Your task to perform on an android device: Go to Wikipedia Image 0: 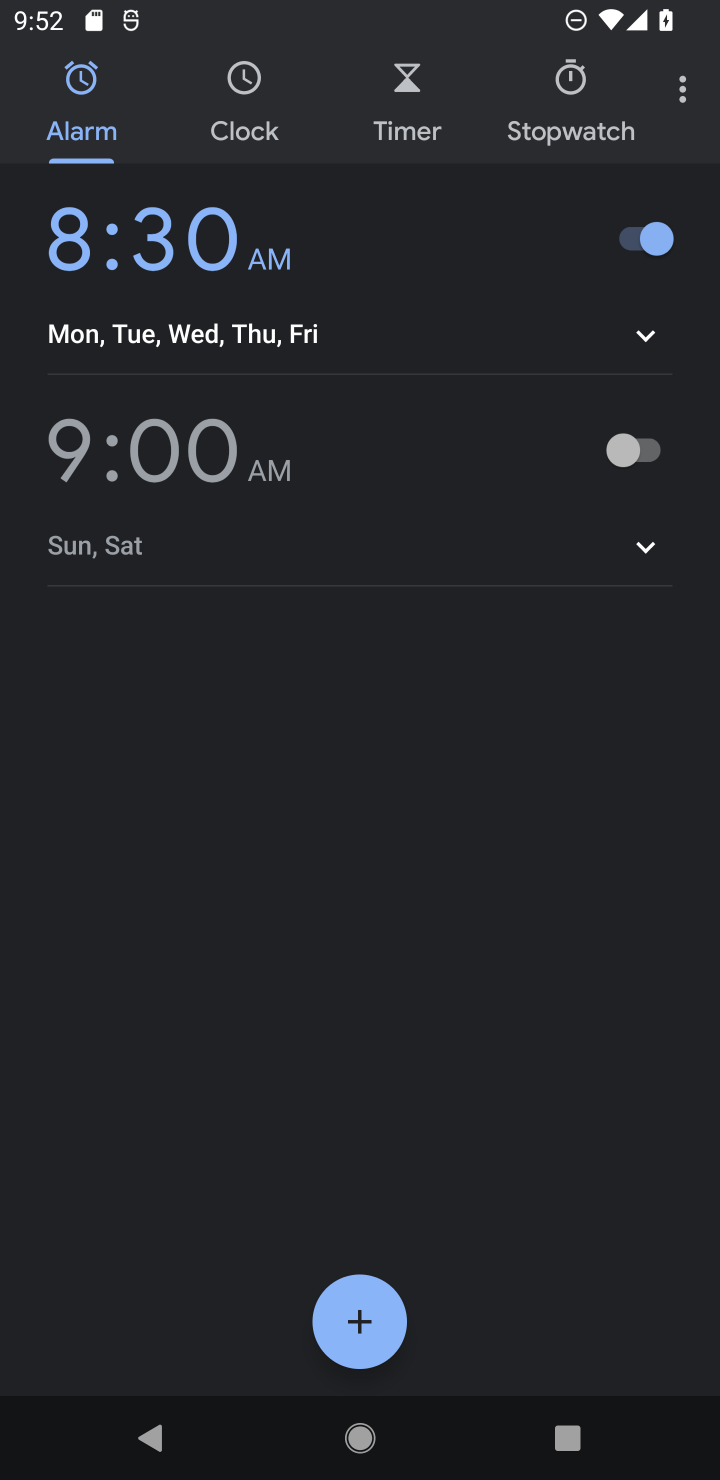
Step 0: press home button
Your task to perform on an android device: Go to Wikipedia Image 1: 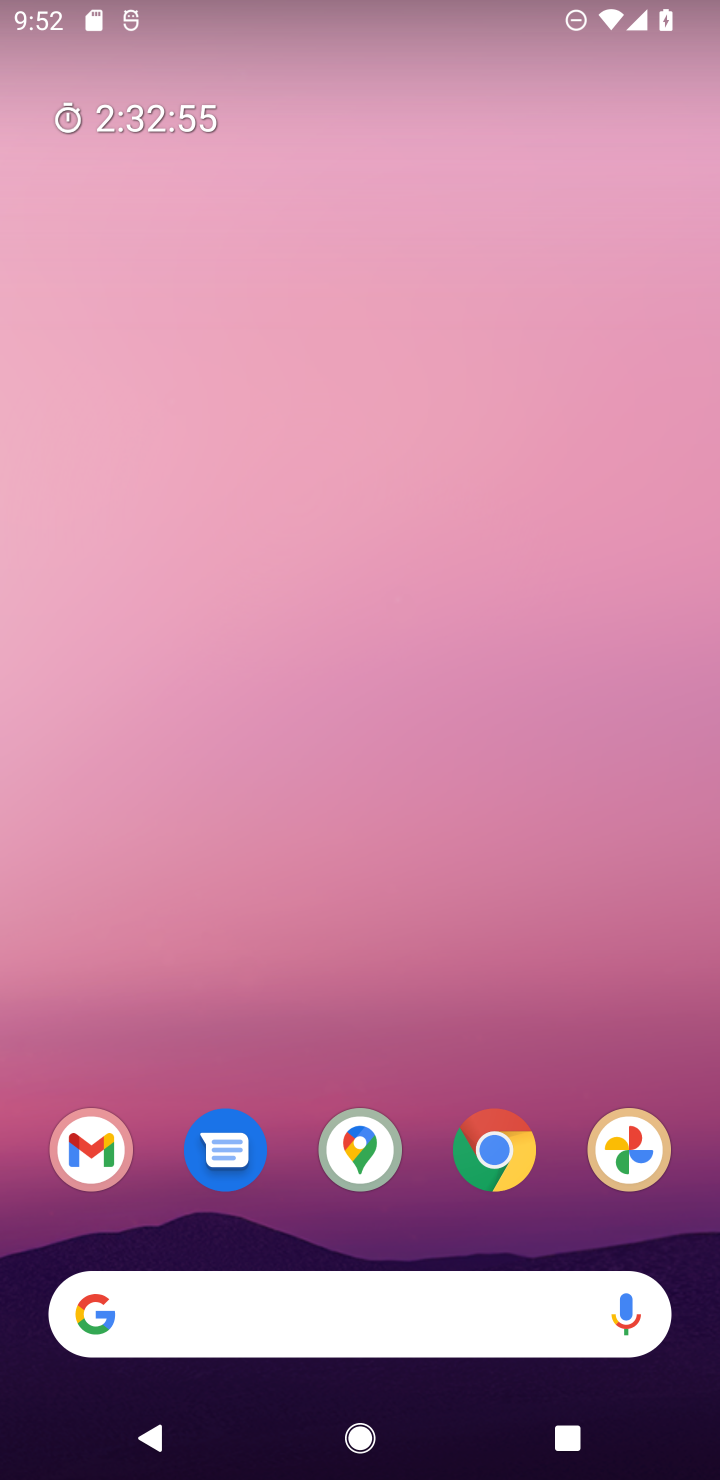
Step 1: drag from (529, 1285) to (593, 108)
Your task to perform on an android device: Go to Wikipedia Image 2: 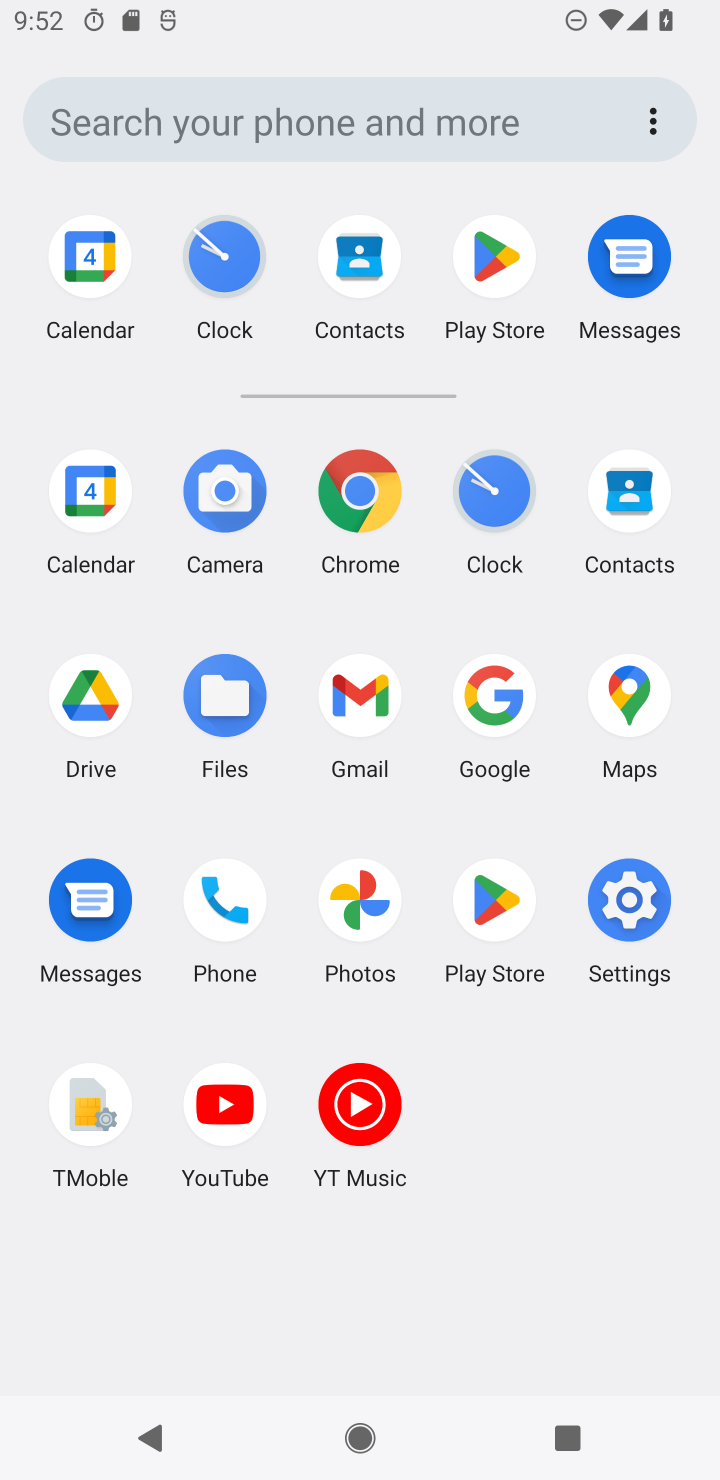
Step 2: click (335, 493)
Your task to perform on an android device: Go to Wikipedia Image 3: 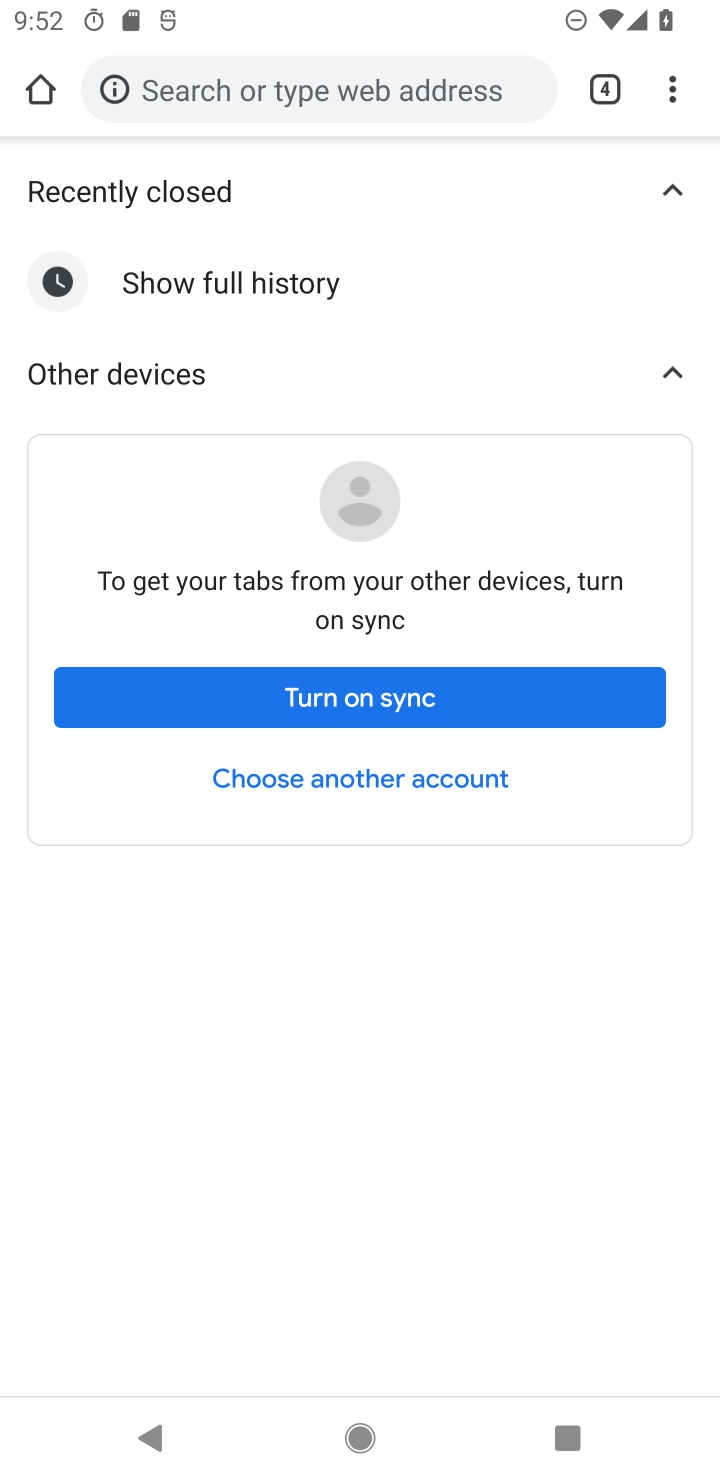
Step 3: click (249, 78)
Your task to perform on an android device: Go to Wikipedia Image 4: 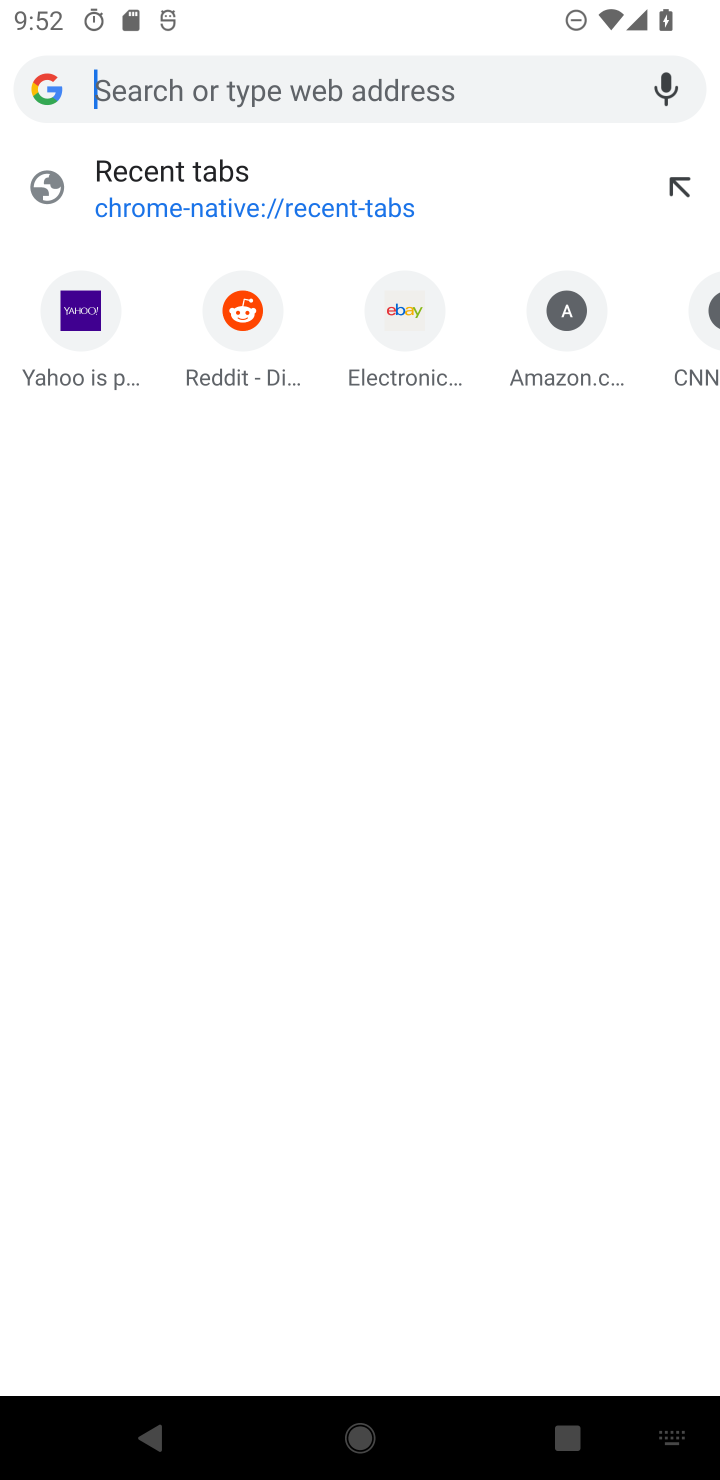
Step 4: type "wikipedia"
Your task to perform on an android device: Go to Wikipedia Image 5: 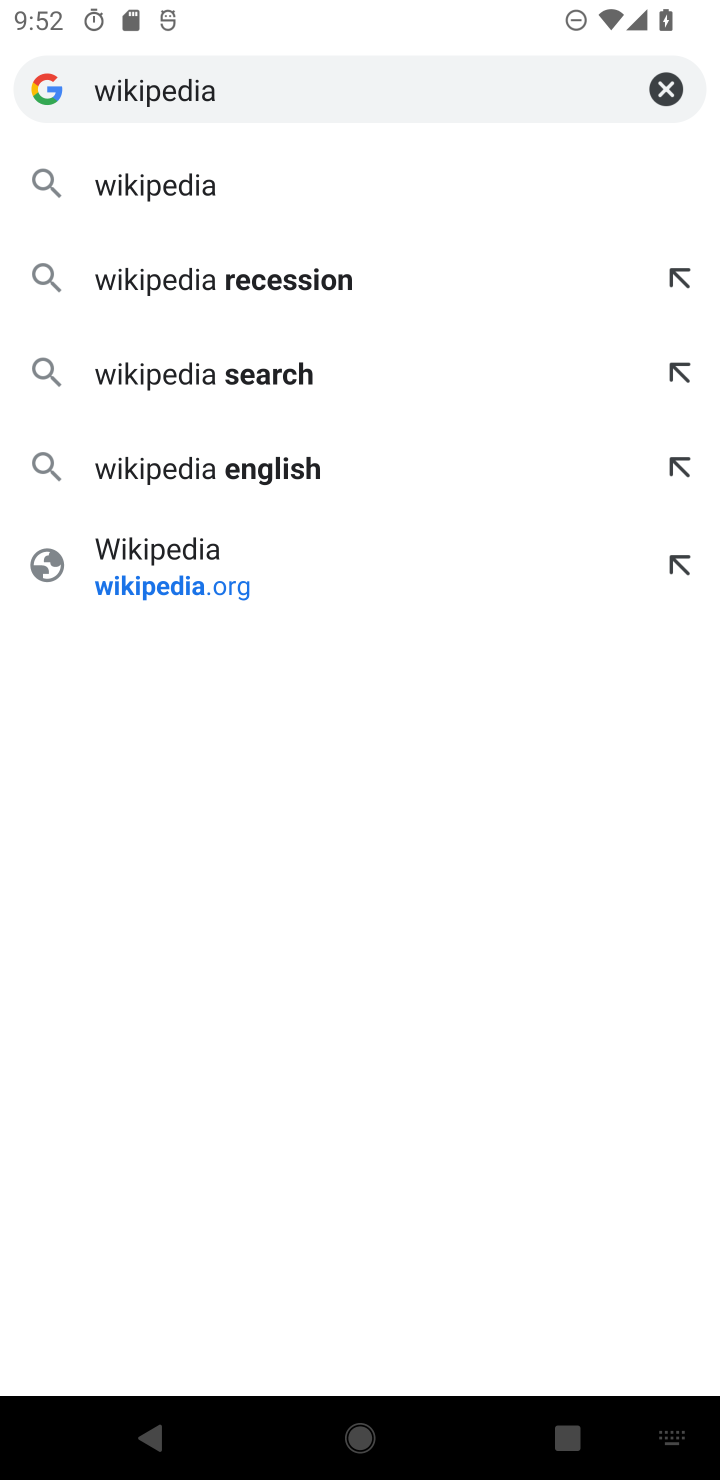
Step 5: click (269, 203)
Your task to perform on an android device: Go to Wikipedia Image 6: 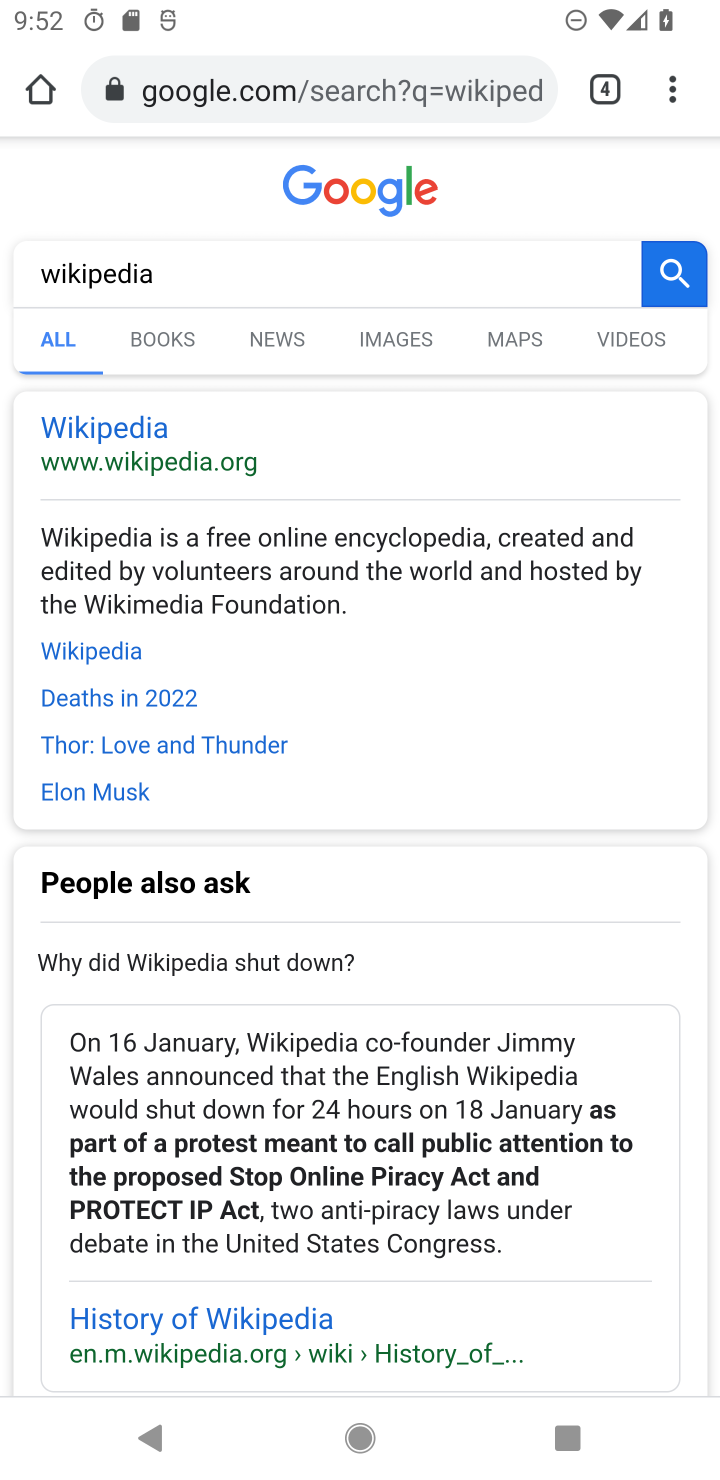
Step 6: task complete